Your task to perform on an android device: turn notification dots on Image 0: 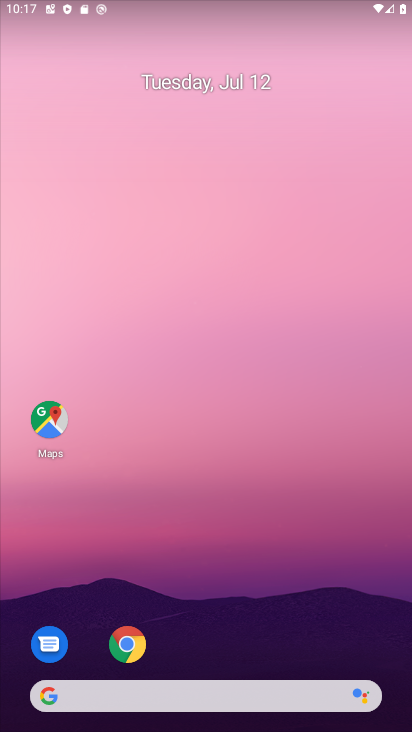
Step 0: drag from (249, 133) to (363, 49)
Your task to perform on an android device: turn notification dots on Image 1: 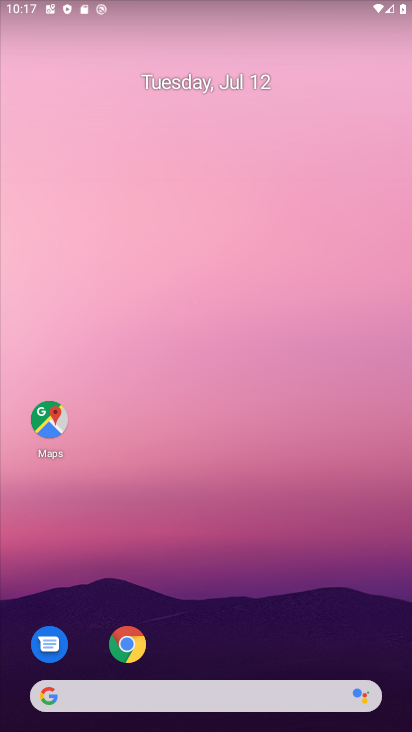
Step 1: drag from (235, 712) to (243, 20)
Your task to perform on an android device: turn notification dots on Image 2: 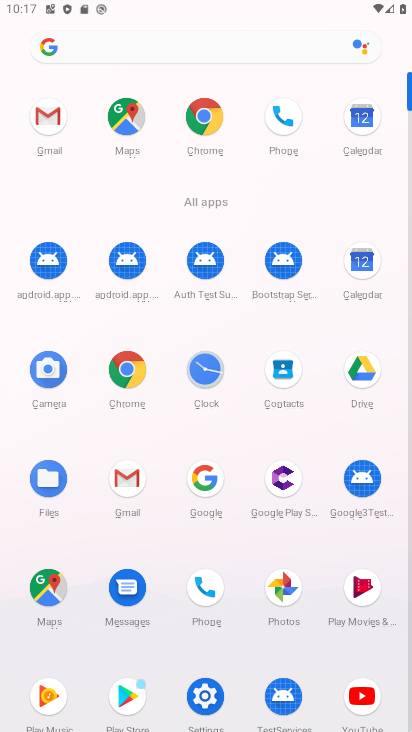
Step 2: click (220, 688)
Your task to perform on an android device: turn notification dots on Image 3: 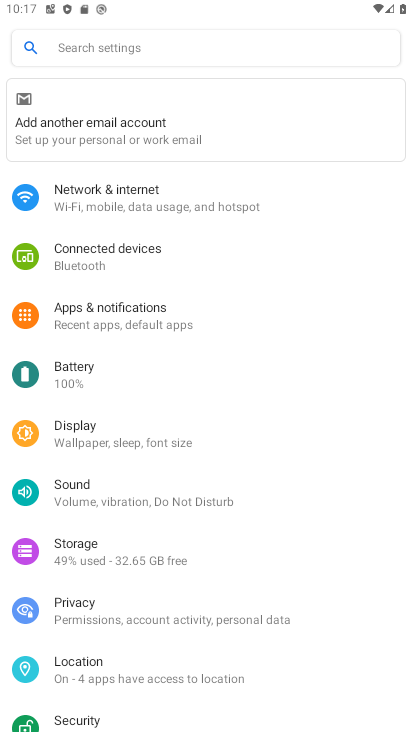
Step 3: click (207, 322)
Your task to perform on an android device: turn notification dots on Image 4: 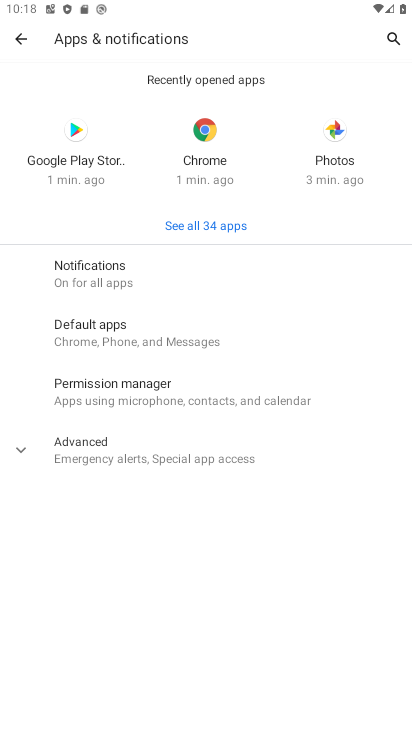
Step 4: click (93, 449)
Your task to perform on an android device: turn notification dots on Image 5: 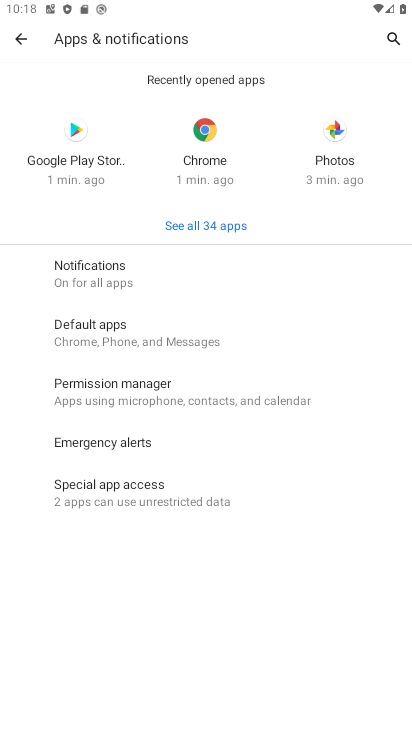
Step 5: click (105, 261)
Your task to perform on an android device: turn notification dots on Image 6: 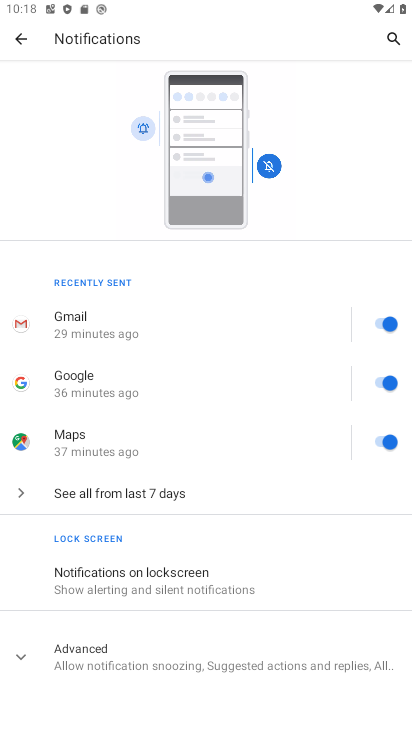
Step 6: click (281, 664)
Your task to perform on an android device: turn notification dots on Image 7: 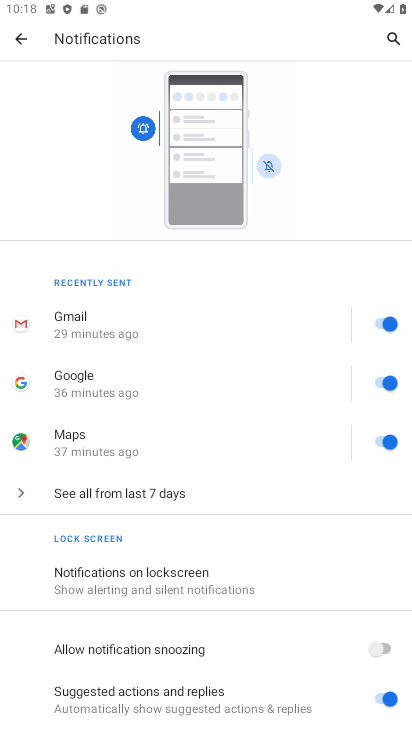
Step 7: task complete